Your task to perform on an android device: Show me recent news Image 0: 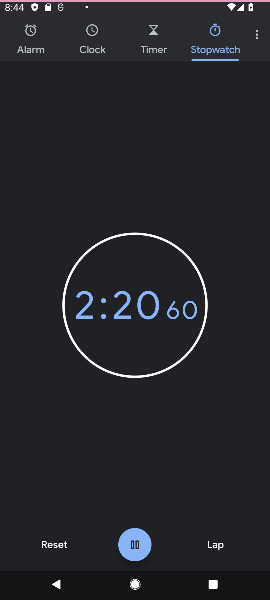
Step 0: press home button
Your task to perform on an android device: Show me recent news Image 1: 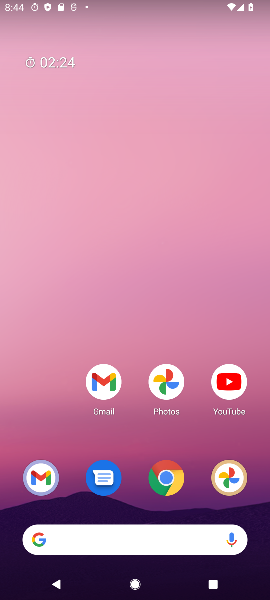
Step 1: click (162, 489)
Your task to perform on an android device: Show me recent news Image 2: 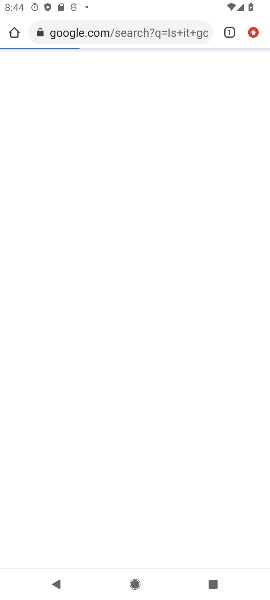
Step 2: click (118, 35)
Your task to perform on an android device: Show me recent news Image 3: 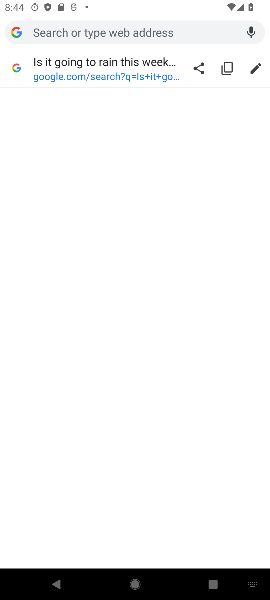
Step 3: type "Show me recent news"
Your task to perform on an android device: Show me recent news Image 4: 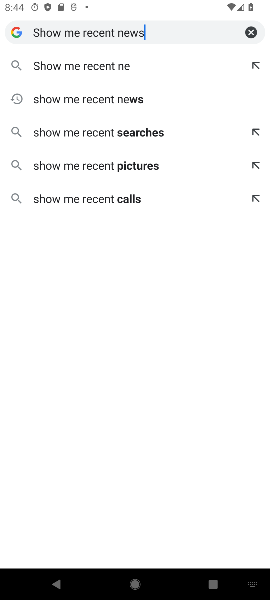
Step 4: type ""
Your task to perform on an android device: Show me recent news Image 5: 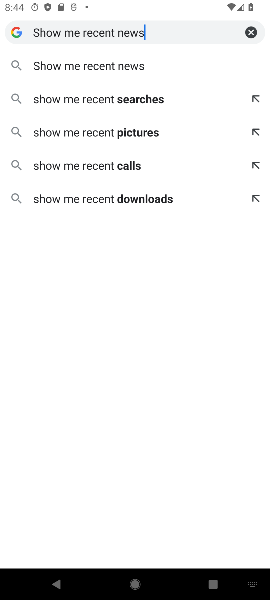
Step 5: click (81, 67)
Your task to perform on an android device: Show me recent news Image 6: 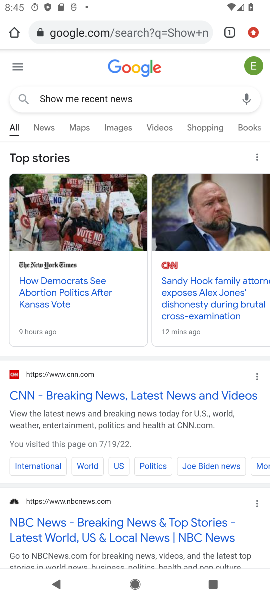
Step 6: task complete